Your task to perform on an android device: open sync settings in chrome Image 0: 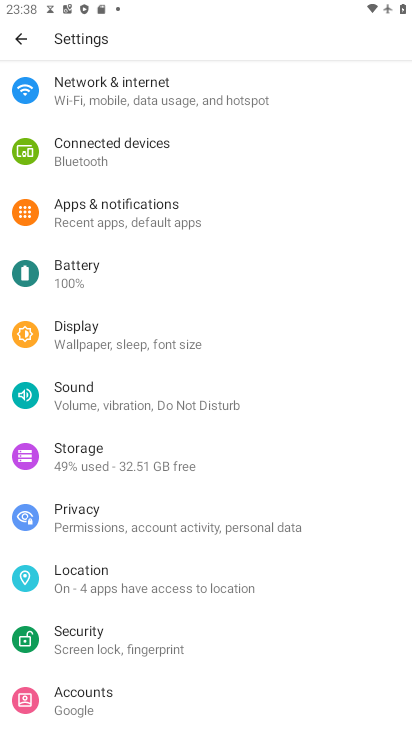
Step 0: press home button
Your task to perform on an android device: open sync settings in chrome Image 1: 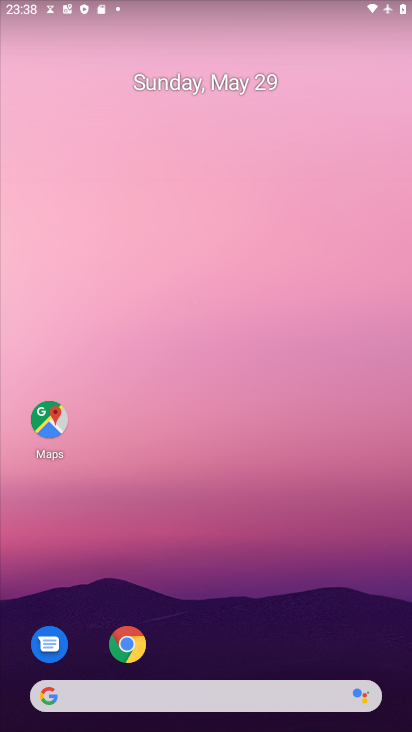
Step 1: drag from (226, 615) to (252, 146)
Your task to perform on an android device: open sync settings in chrome Image 2: 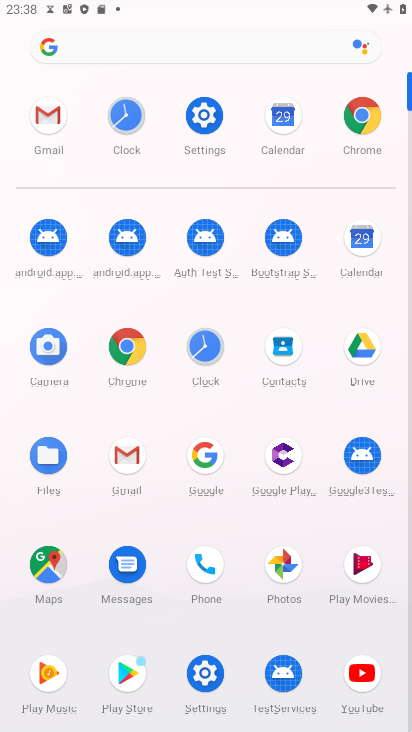
Step 2: click (117, 342)
Your task to perform on an android device: open sync settings in chrome Image 3: 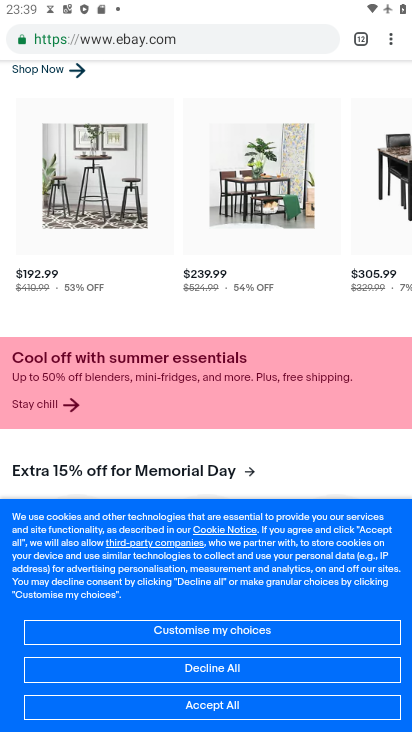
Step 3: click (395, 31)
Your task to perform on an android device: open sync settings in chrome Image 4: 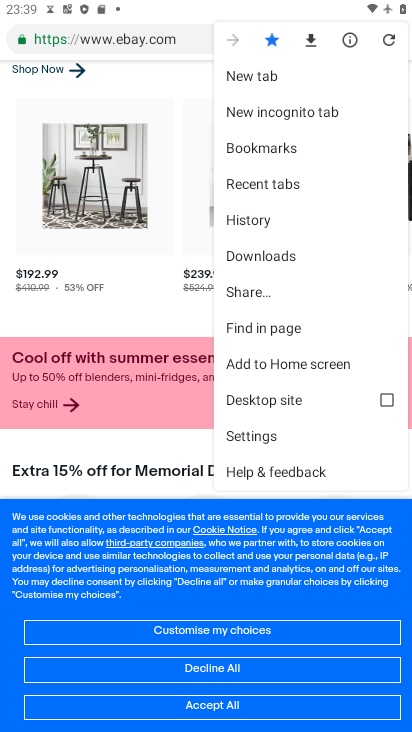
Step 4: click (274, 432)
Your task to perform on an android device: open sync settings in chrome Image 5: 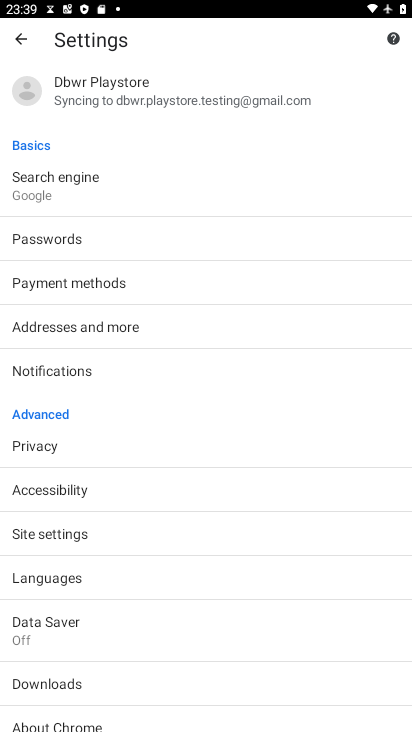
Step 5: drag from (160, 621) to (236, 149)
Your task to perform on an android device: open sync settings in chrome Image 6: 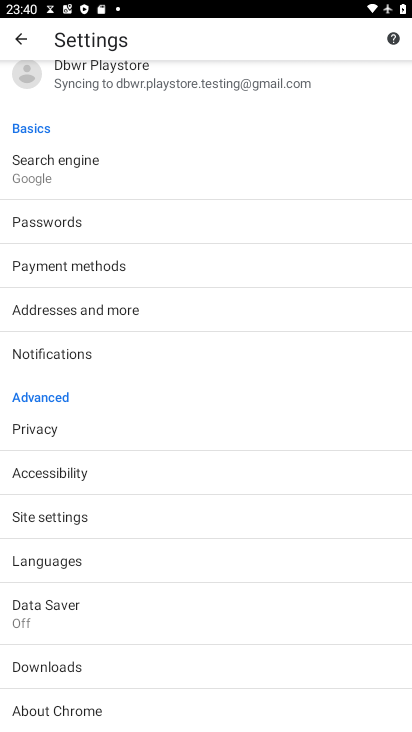
Step 6: click (105, 167)
Your task to perform on an android device: open sync settings in chrome Image 7: 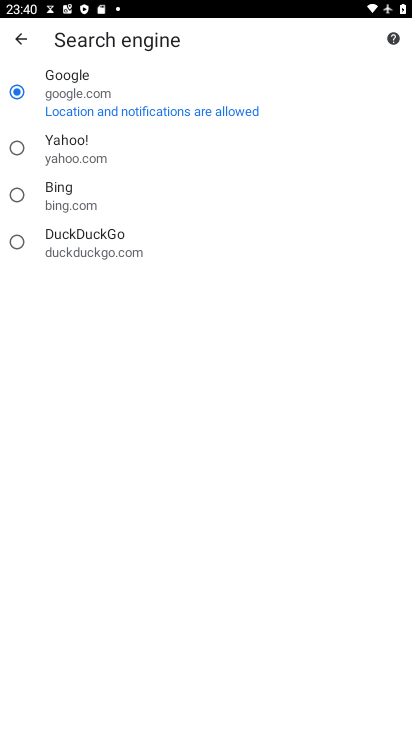
Step 7: click (26, 38)
Your task to perform on an android device: open sync settings in chrome Image 8: 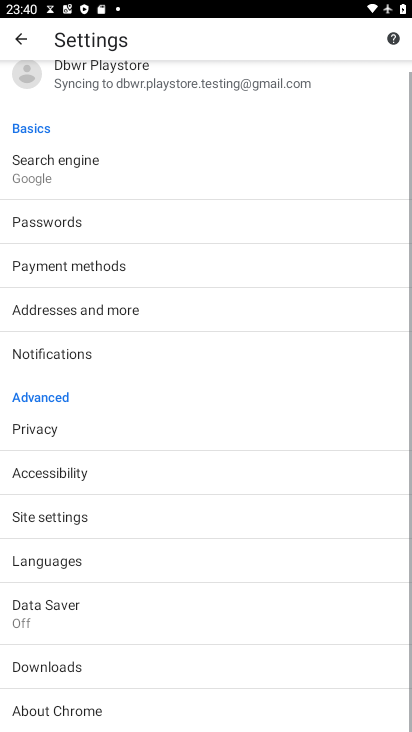
Step 8: drag from (154, 86) to (170, 354)
Your task to perform on an android device: open sync settings in chrome Image 9: 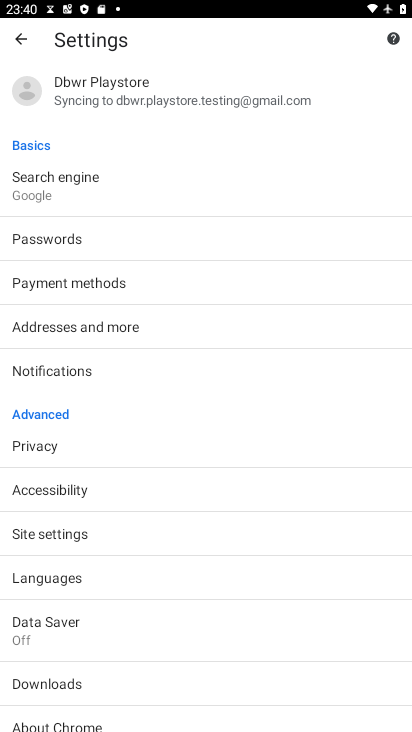
Step 9: click (130, 90)
Your task to perform on an android device: open sync settings in chrome Image 10: 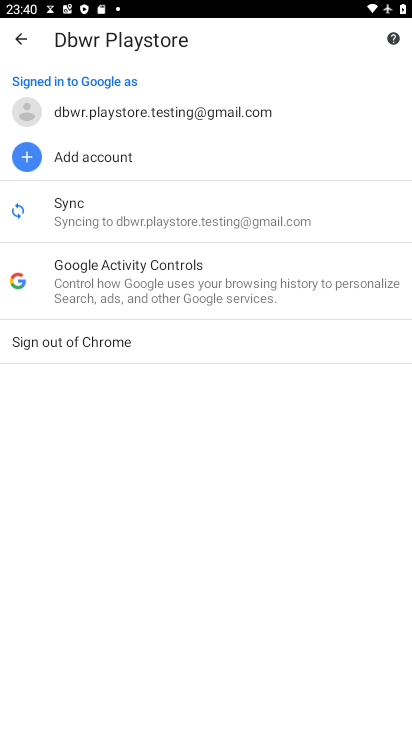
Step 10: click (138, 210)
Your task to perform on an android device: open sync settings in chrome Image 11: 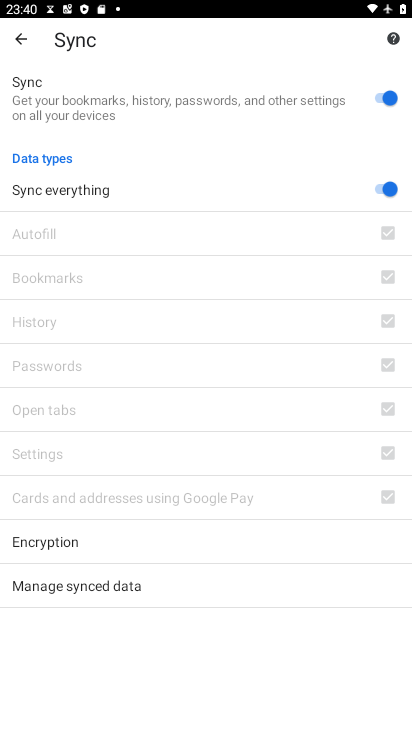
Step 11: task complete